Your task to perform on an android device: Open the phone app and click the voicemail tab. Image 0: 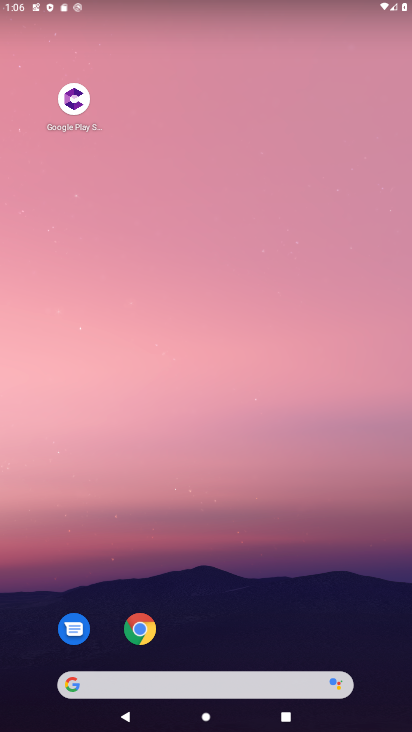
Step 0: drag from (249, 623) to (238, 143)
Your task to perform on an android device: Open the phone app and click the voicemail tab. Image 1: 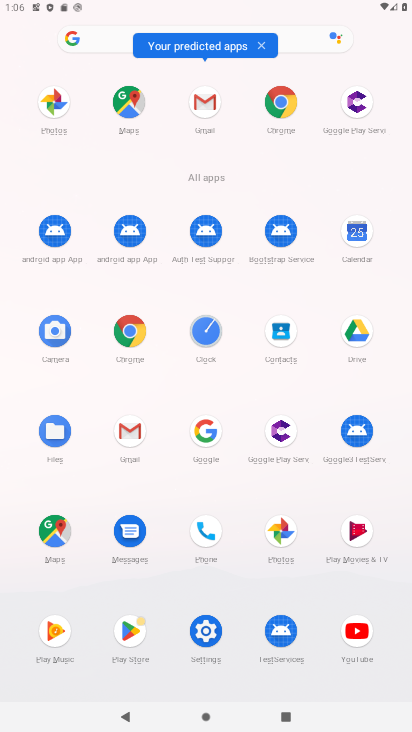
Step 1: drag from (290, 572) to (353, 121)
Your task to perform on an android device: Open the phone app and click the voicemail tab. Image 2: 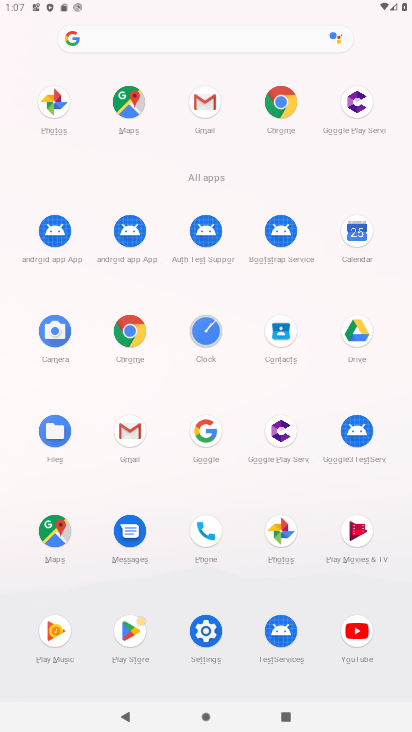
Step 2: click (197, 521)
Your task to perform on an android device: Open the phone app and click the voicemail tab. Image 3: 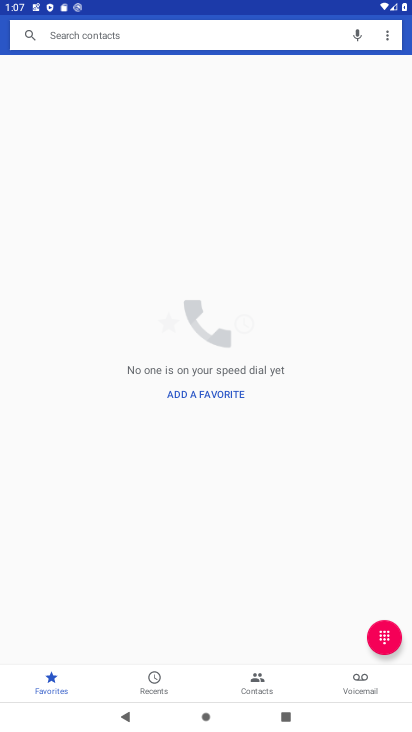
Step 3: click (366, 686)
Your task to perform on an android device: Open the phone app and click the voicemail tab. Image 4: 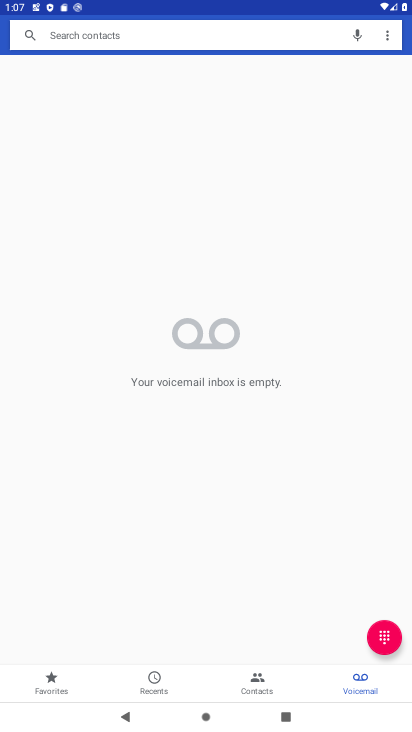
Step 4: click (343, 685)
Your task to perform on an android device: Open the phone app and click the voicemail tab. Image 5: 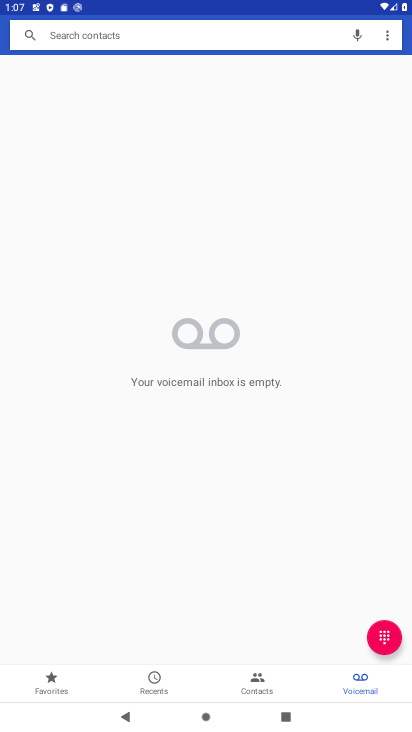
Step 5: task complete